Your task to perform on an android device: Go to notification settings Image 0: 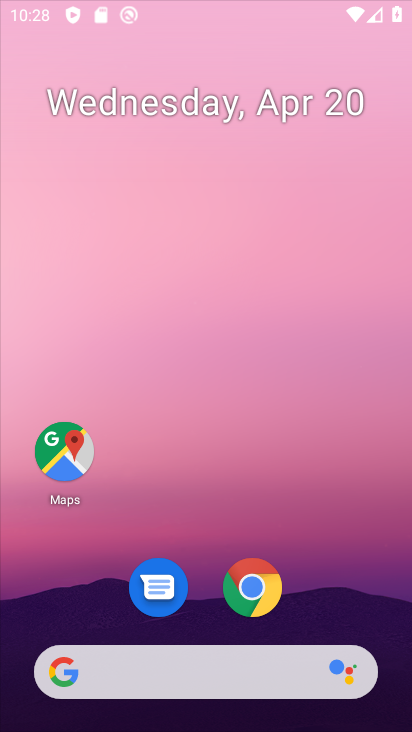
Step 0: click (154, 20)
Your task to perform on an android device: Go to notification settings Image 1: 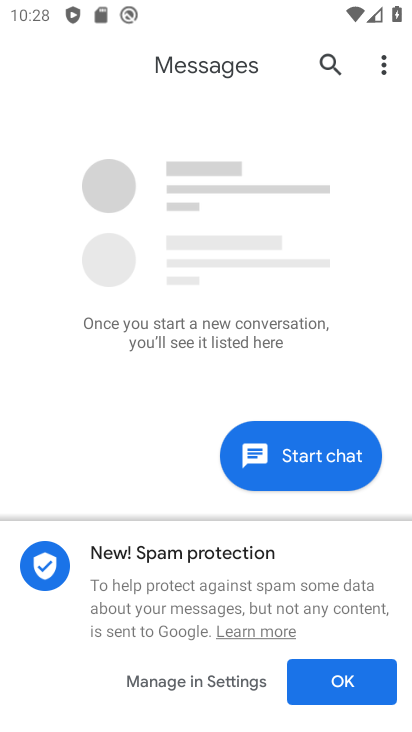
Step 1: press back button
Your task to perform on an android device: Go to notification settings Image 2: 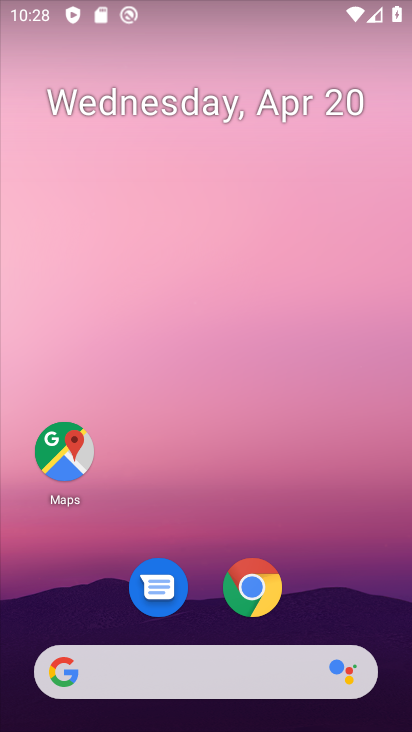
Step 2: drag from (357, 569) to (231, 83)
Your task to perform on an android device: Go to notification settings Image 3: 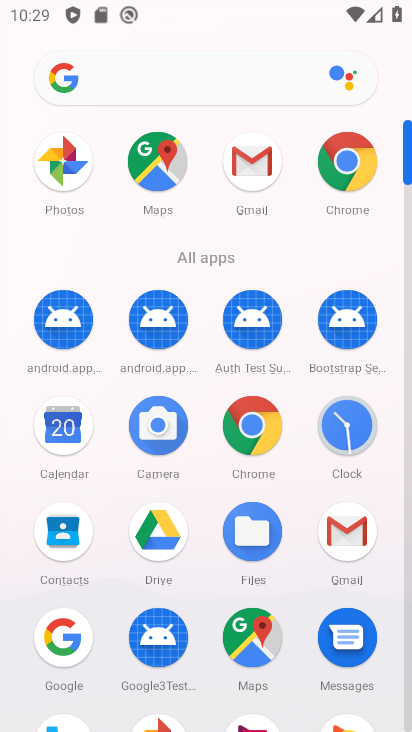
Step 3: drag from (0, 551) to (2, 379)
Your task to perform on an android device: Go to notification settings Image 4: 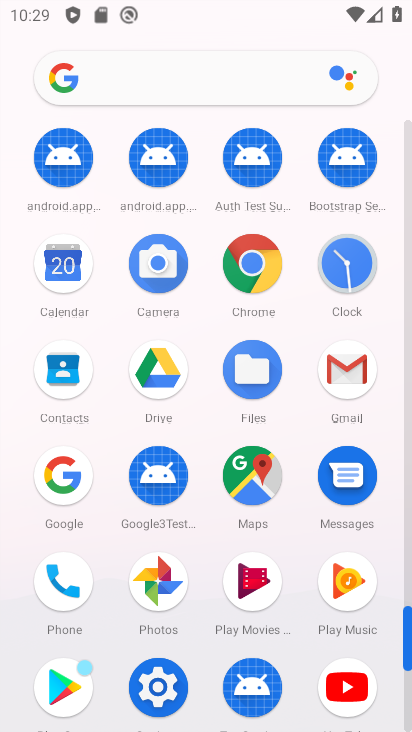
Step 4: drag from (10, 472) to (4, 284)
Your task to perform on an android device: Go to notification settings Image 5: 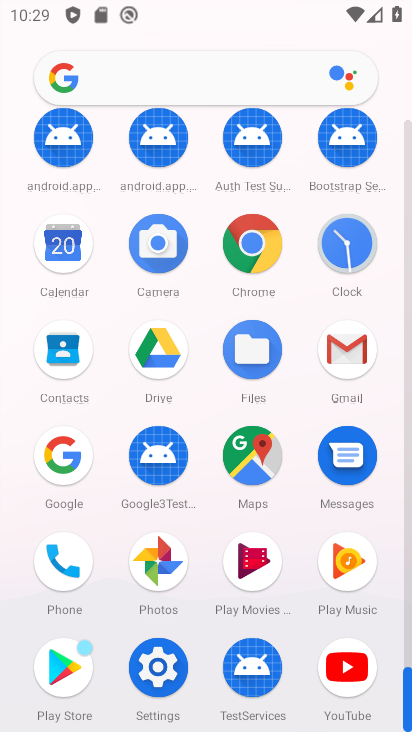
Step 5: click (159, 666)
Your task to perform on an android device: Go to notification settings Image 6: 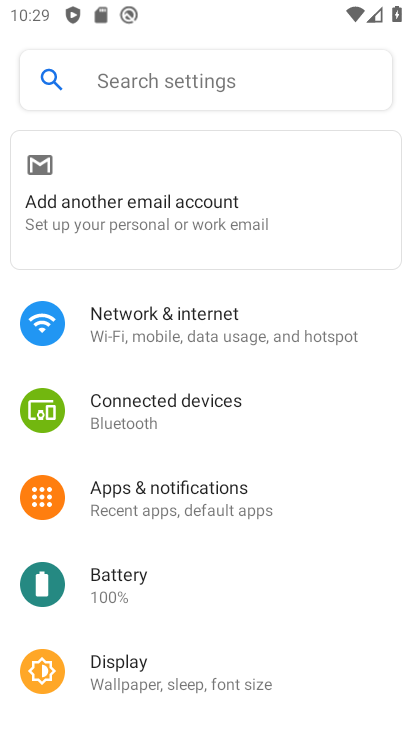
Step 6: click (193, 504)
Your task to perform on an android device: Go to notification settings Image 7: 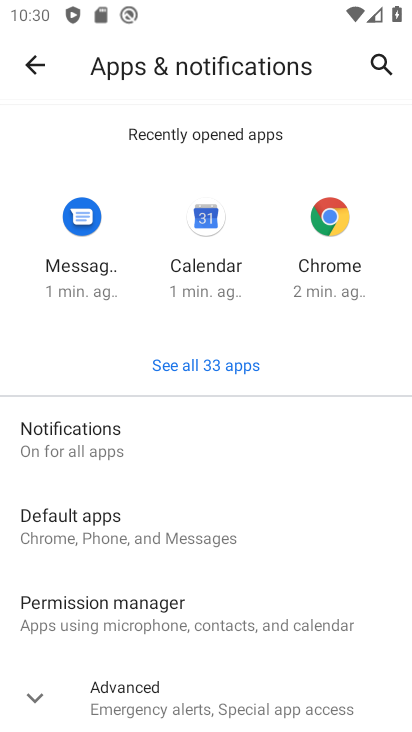
Step 7: click (151, 435)
Your task to perform on an android device: Go to notification settings Image 8: 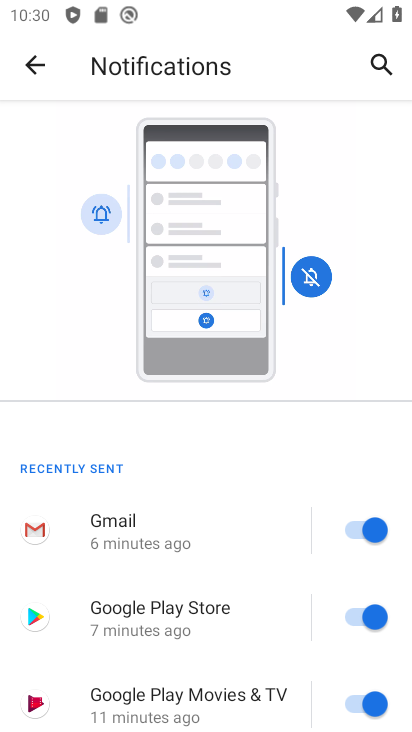
Step 8: task complete